Your task to perform on an android device: Go to sound settings Image 0: 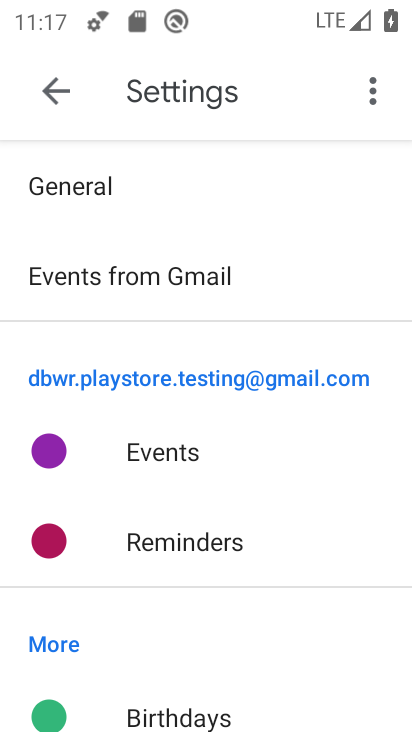
Step 0: press home button
Your task to perform on an android device: Go to sound settings Image 1: 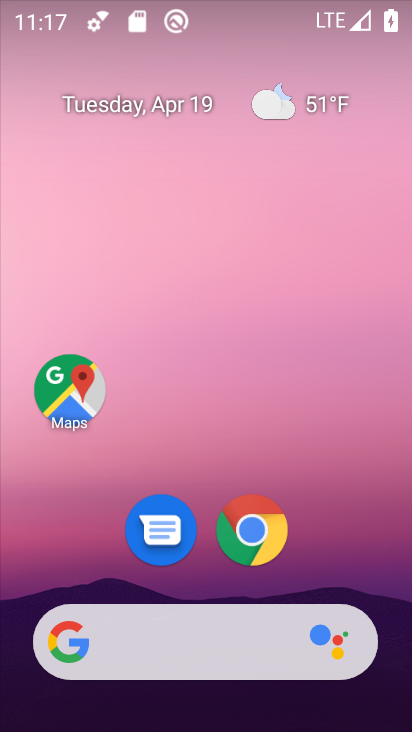
Step 1: drag from (152, 661) to (342, 56)
Your task to perform on an android device: Go to sound settings Image 2: 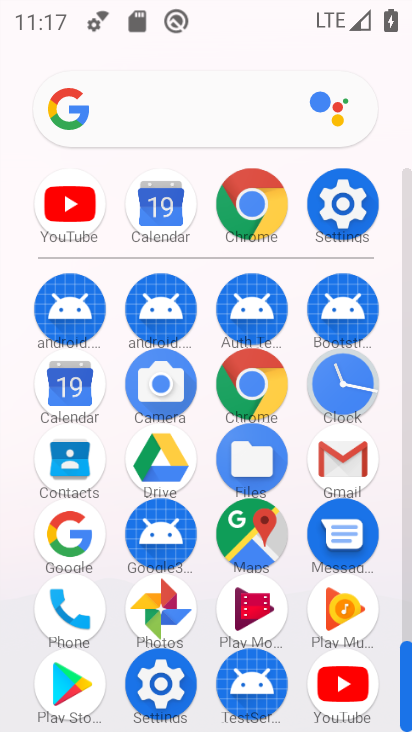
Step 2: click (351, 208)
Your task to perform on an android device: Go to sound settings Image 3: 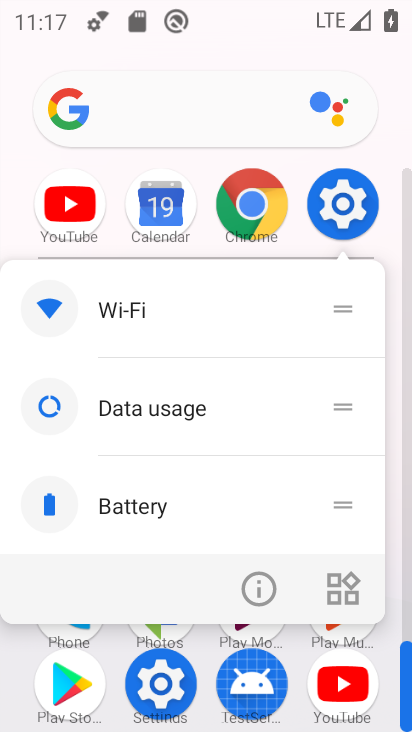
Step 3: click (342, 204)
Your task to perform on an android device: Go to sound settings Image 4: 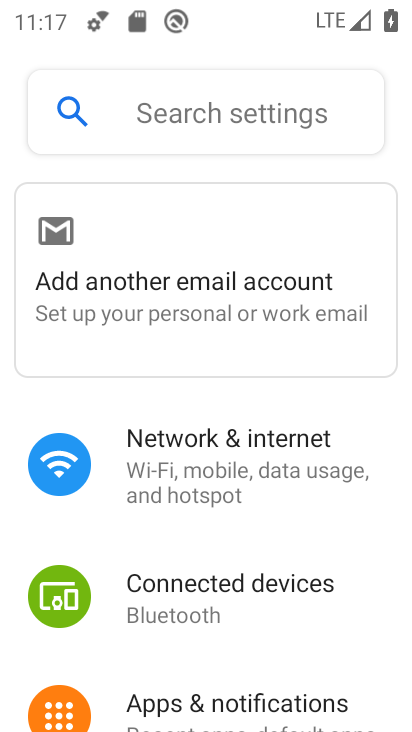
Step 4: drag from (186, 662) to (350, 189)
Your task to perform on an android device: Go to sound settings Image 5: 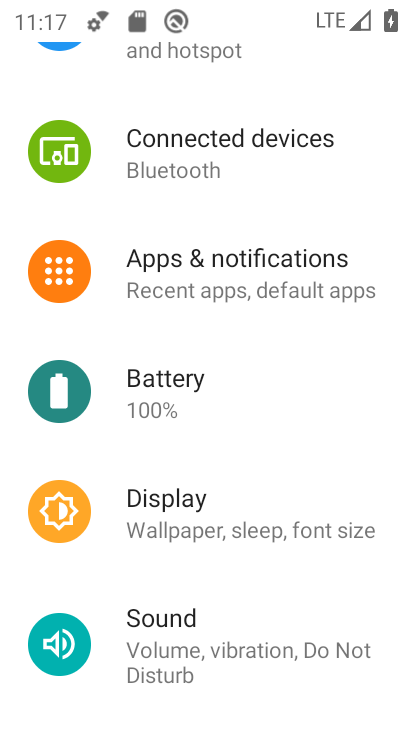
Step 5: drag from (169, 659) to (354, 140)
Your task to perform on an android device: Go to sound settings Image 6: 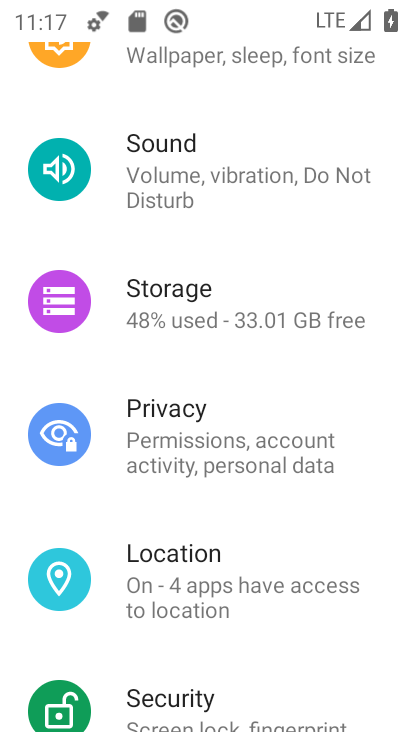
Step 6: drag from (198, 653) to (283, 360)
Your task to perform on an android device: Go to sound settings Image 7: 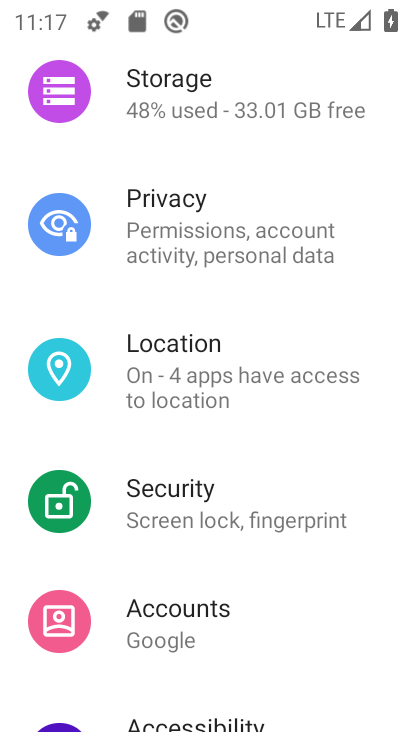
Step 7: drag from (268, 98) to (211, 481)
Your task to perform on an android device: Go to sound settings Image 8: 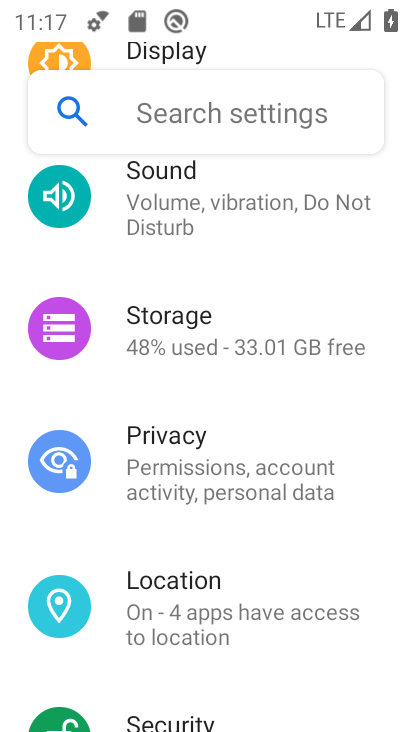
Step 8: click (186, 186)
Your task to perform on an android device: Go to sound settings Image 9: 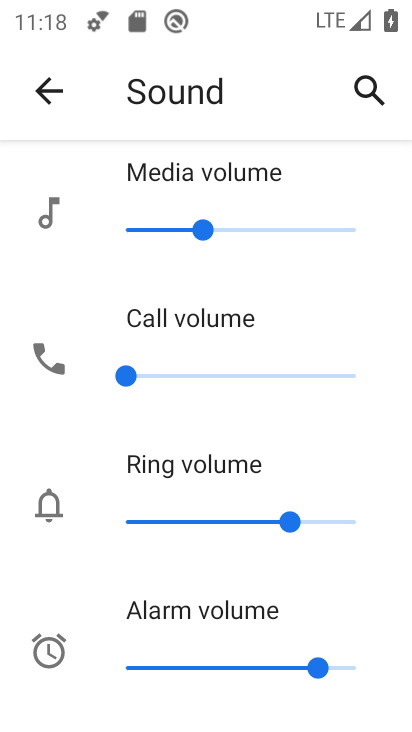
Step 9: task complete